Your task to perform on an android device: uninstall "Nova Launcher" Image 0: 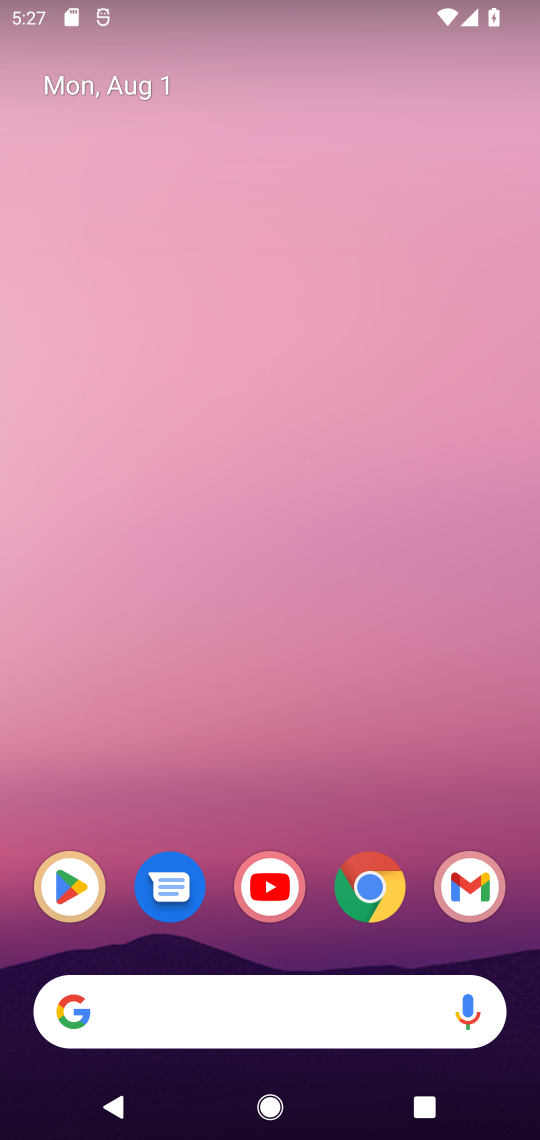
Step 0: click (76, 912)
Your task to perform on an android device: uninstall "Nova Launcher" Image 1: 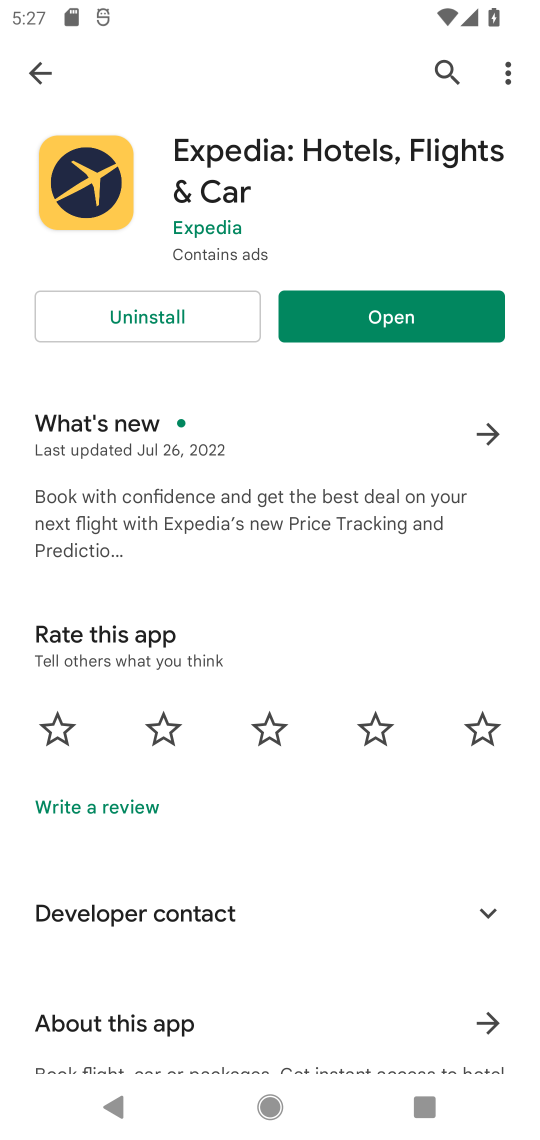
Step 1: click (36, 63)
Your task to perform on an android device: uninstall "Nova Launcher" Image 2: 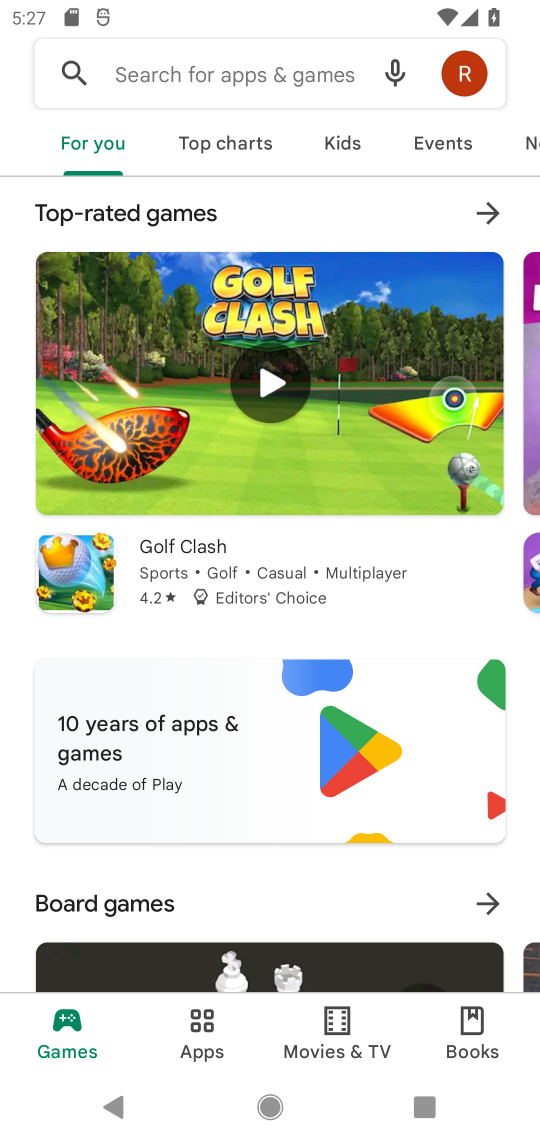
Step 2: click (150, 68)
Your task to perform on an android device: uninstall "Nova Launcher" Image 3: 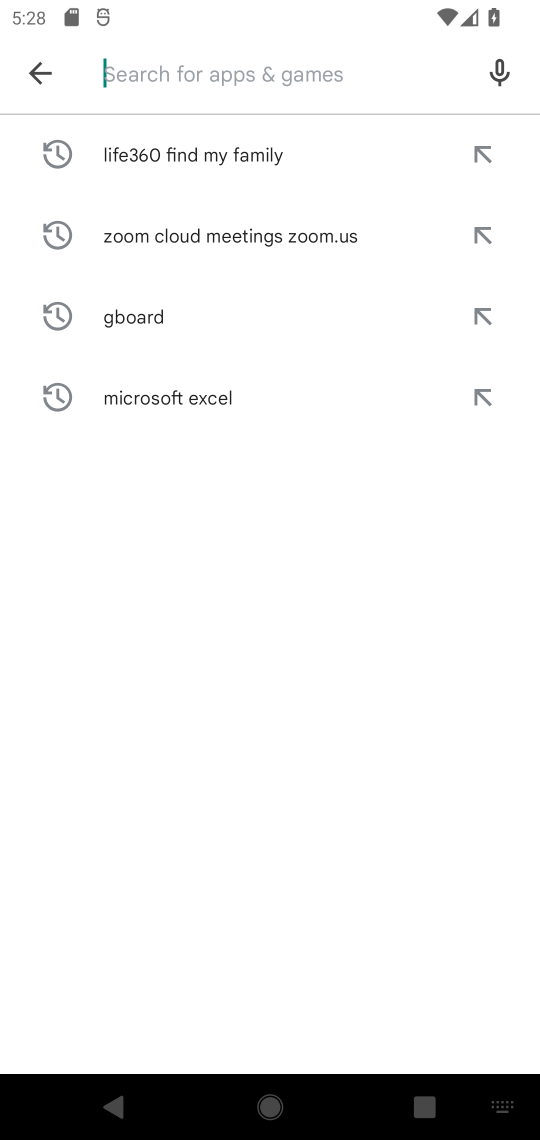
Step 3: type "Nova Launcher"
Your task to perform on an android device: uninstall "Nova Launcher" Image 4: 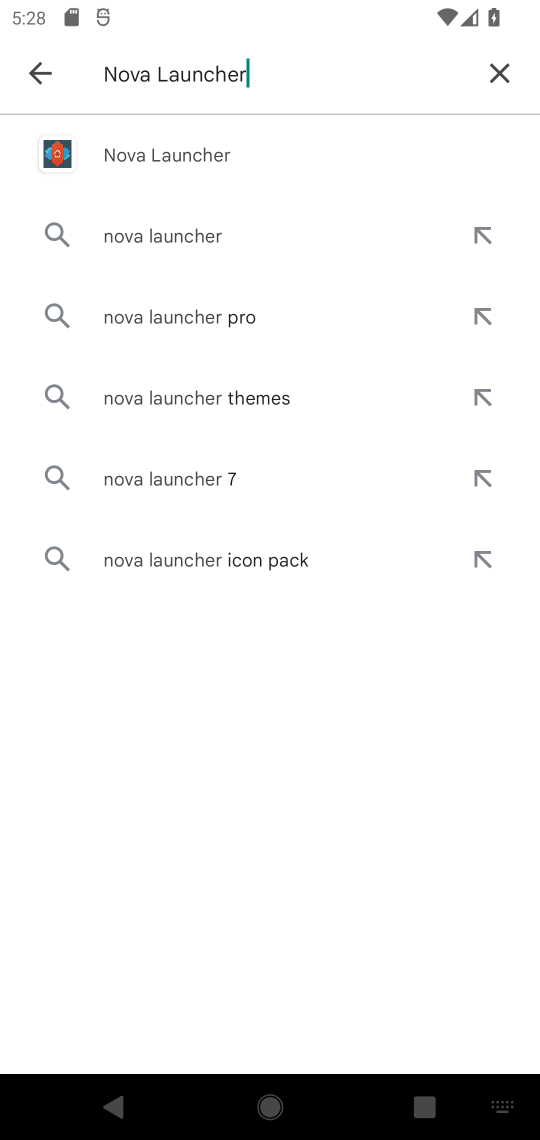
Step 4: click (80, 149)
Your task to perform on an android device: uninstall "Nova Launcher" Image 5: 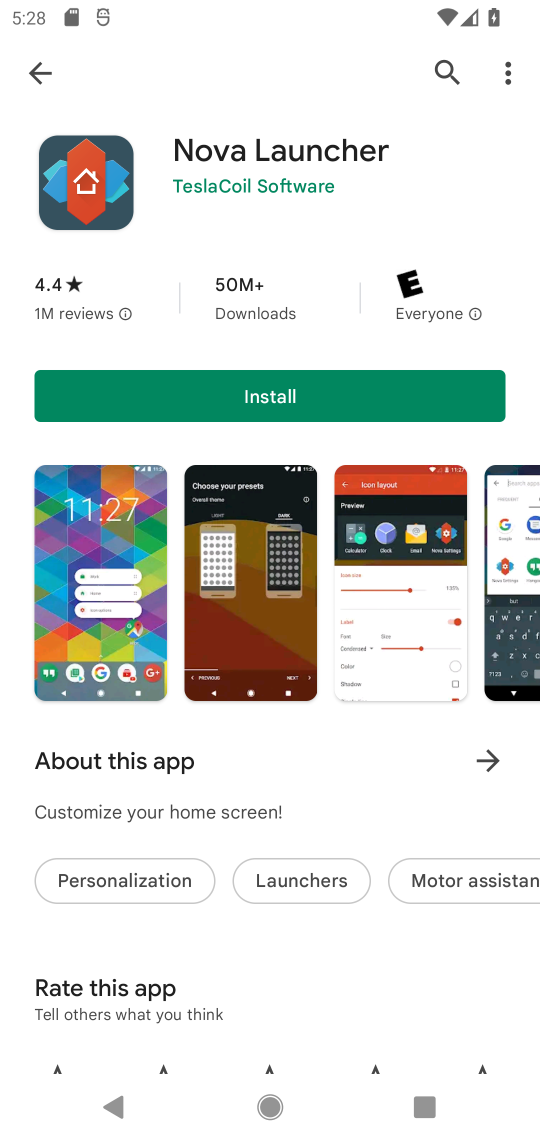
Step 5: task complete